Your task to perform on an android device: toggle wifi Image 0: 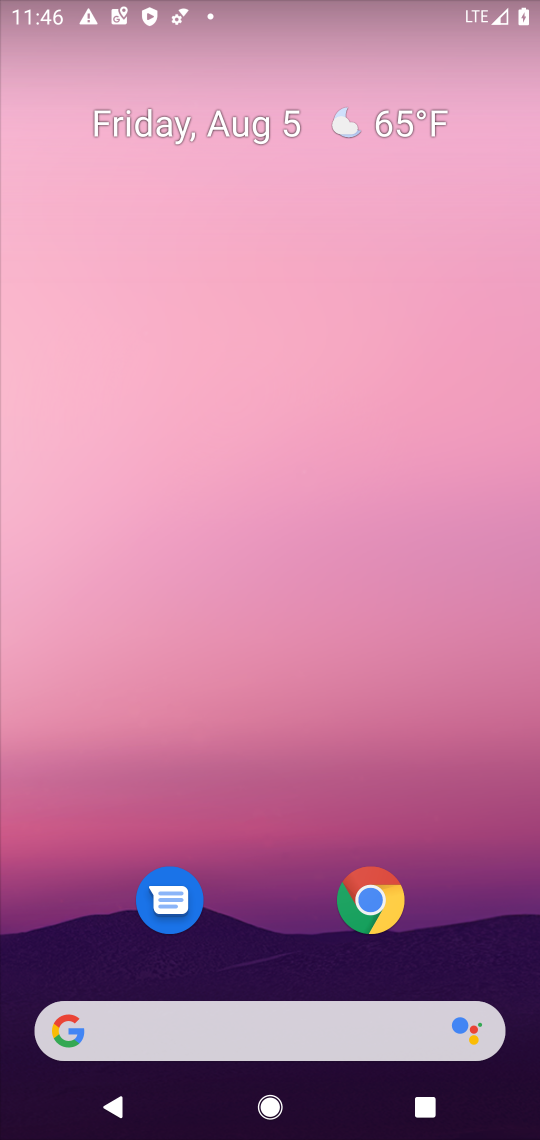
Step 0: drag from (286, 937) to (220, 129)
Your task to perform on an android device: toggle wifi Image 1: 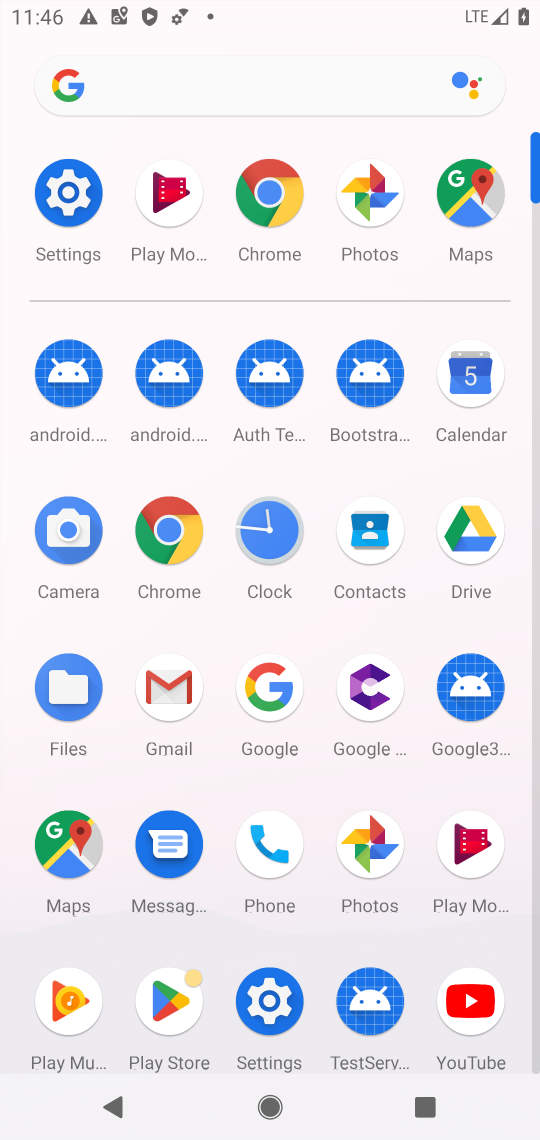
Step 1: click (66, 194)
Your task to perform on an android device: toggle wifi Image 2: 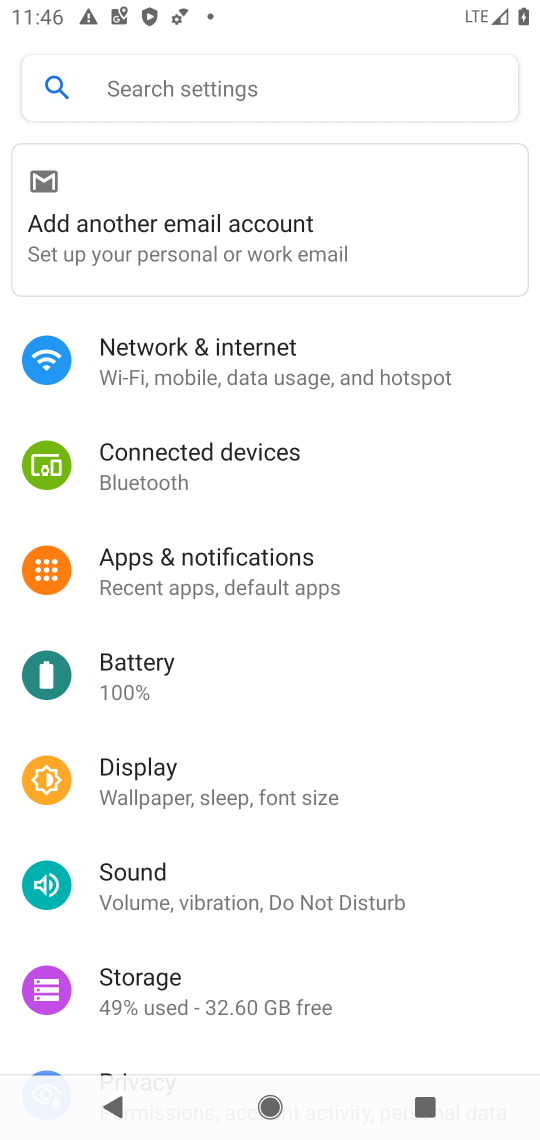
Step 2: click (153, 363)
Your task to perform on an android device: toggle wifi Image 3: 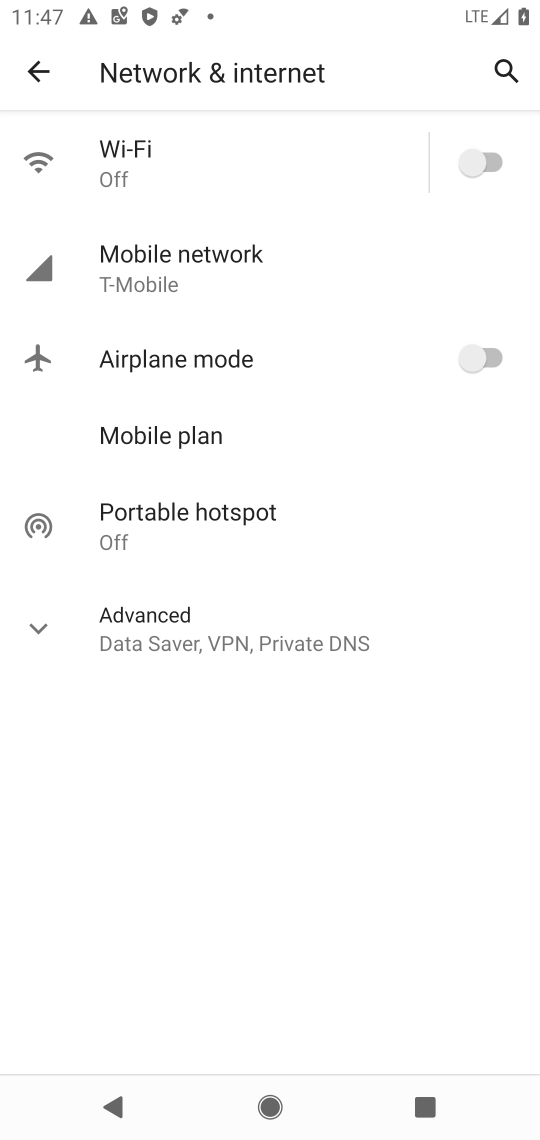
Step 3: click (483, 163)
Your task to perform on an android device: toggle wifi Image 4: 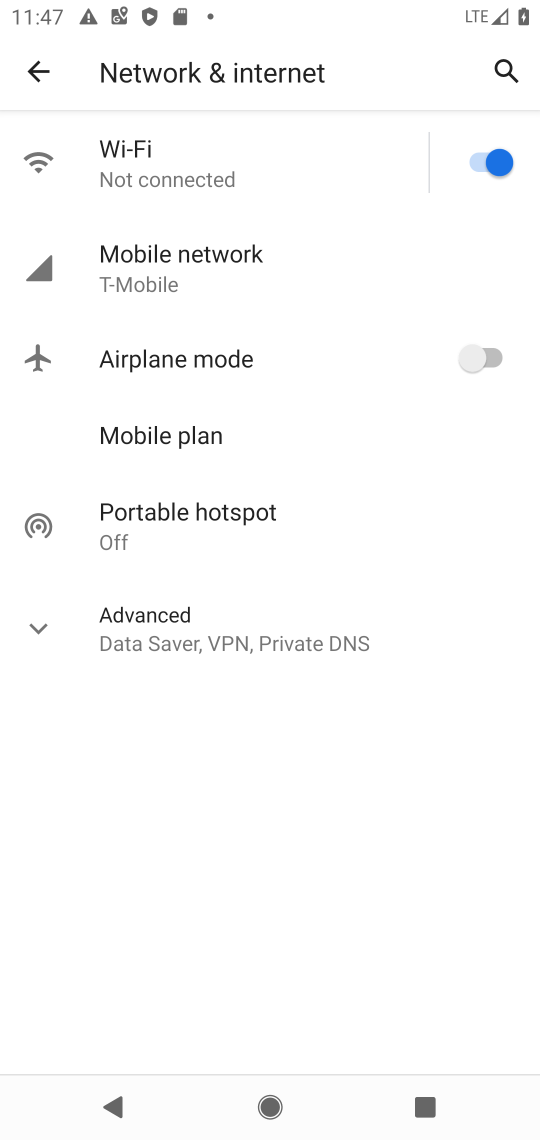
Step 4: task complete